Your task to perform on an android device: turn off data saver in the chrome app Image 0: 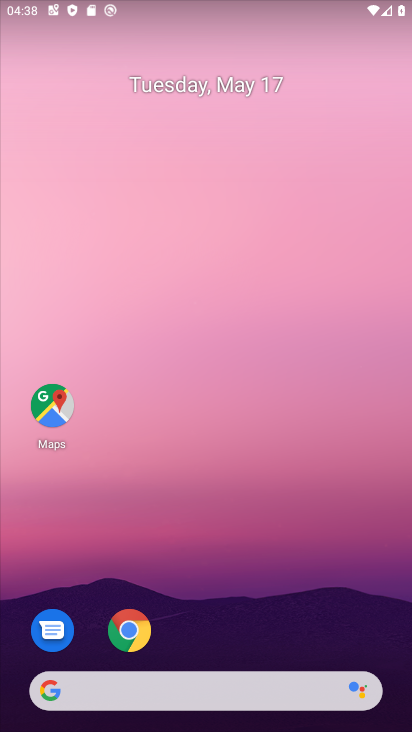
Step 0: click (135, 637)
Your task to perform on an android device: turn off data saver in the chrome app Image 1: 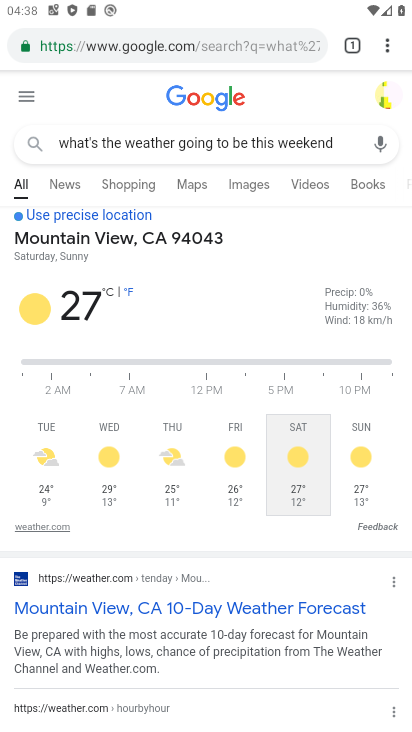
Step 1: drag from (391, 51) to (223, 501)
Your task to perform on an android device: turn off data saver in the chrome app Image 2: 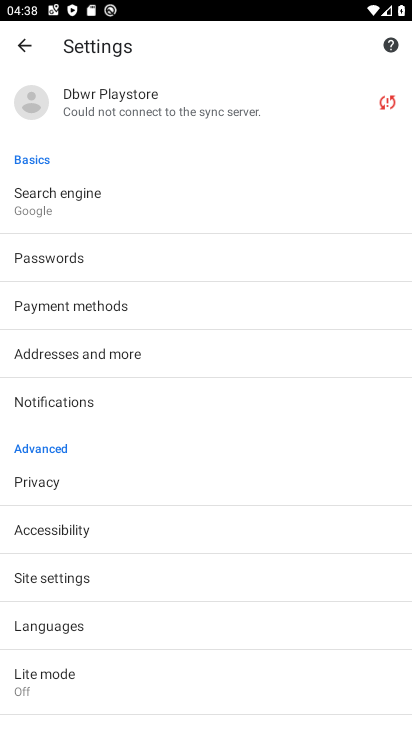
Step 2: click (41, 669)
Your task to perform on an android device: turn off data saver in the chrome app Image 3: 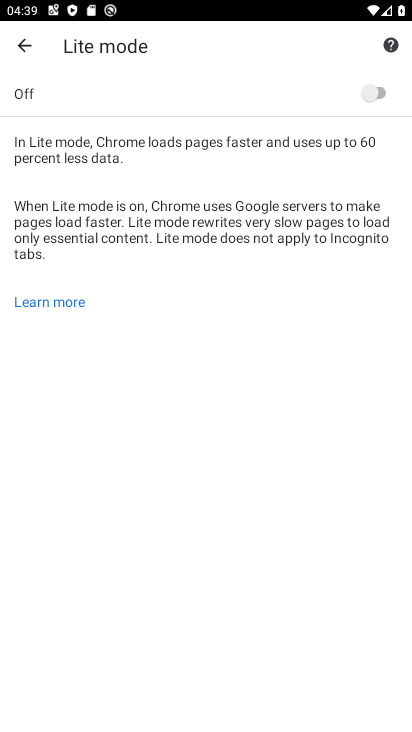
Step 3: task complete